Your task to perform on an android device: Open Yahoo.com Image 0: 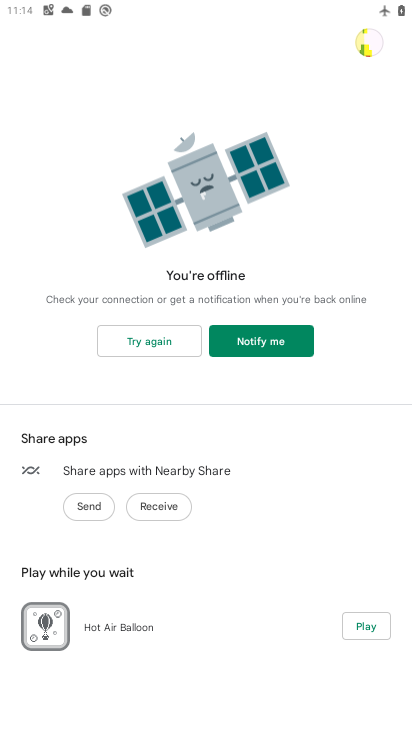
Step 0: press home button
Your task to perform on an android device: Open Yahoo.com Image 1: 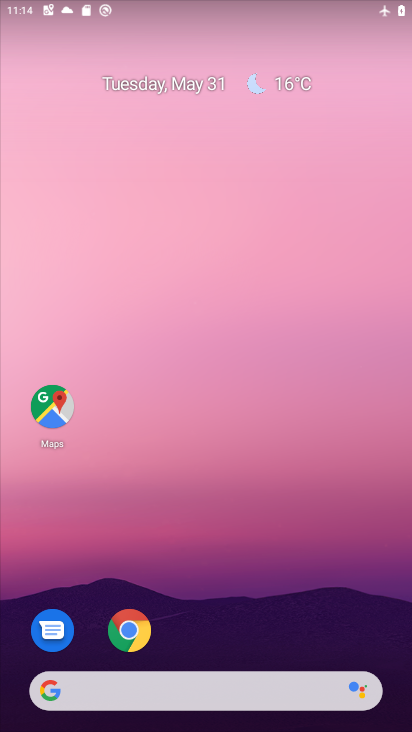
Step 1: click (127, 624)
Your task to perform on an android device: Open Yahoo.com Image 2: 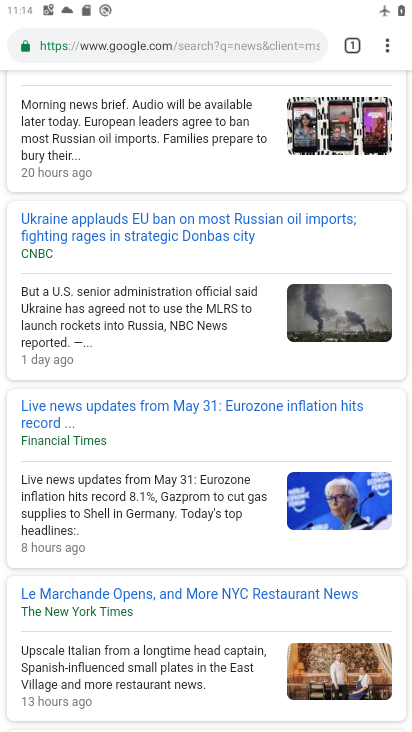
Step 2: click (172, 37)
Your task to perform on an android device: Open Yahoo.com Image 3: 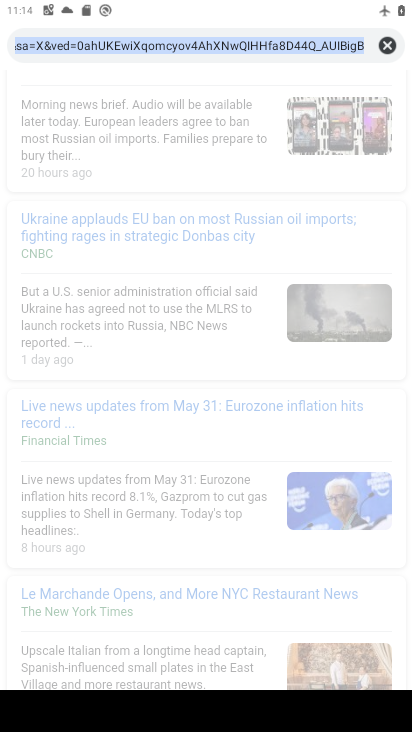
Step 3: type "yahoo.com"
Your task to perform on an android device: Open Yahoo.com Image 4: 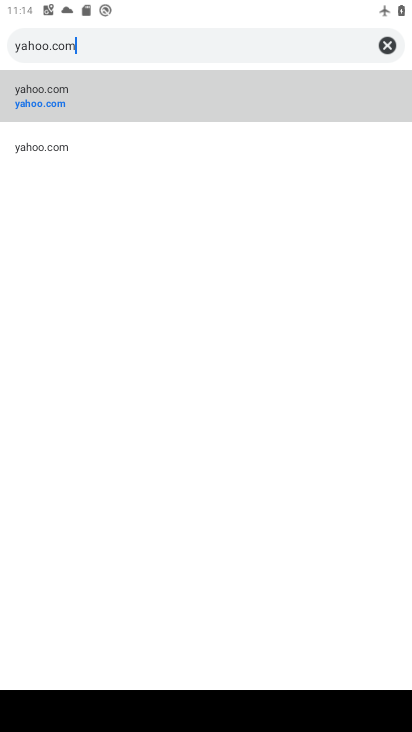
Step 4: click (22, 98)
Your task to perform on an android device: Open Yahoo.com Image 5: 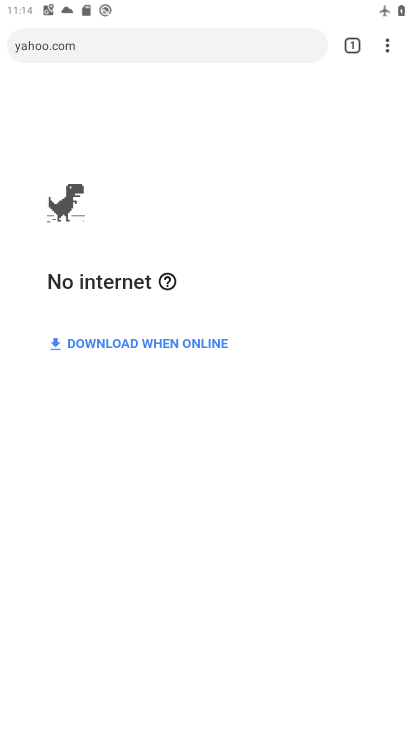
Step 5: task complete